Your task to perform on an android device: check out phone information Image 0: 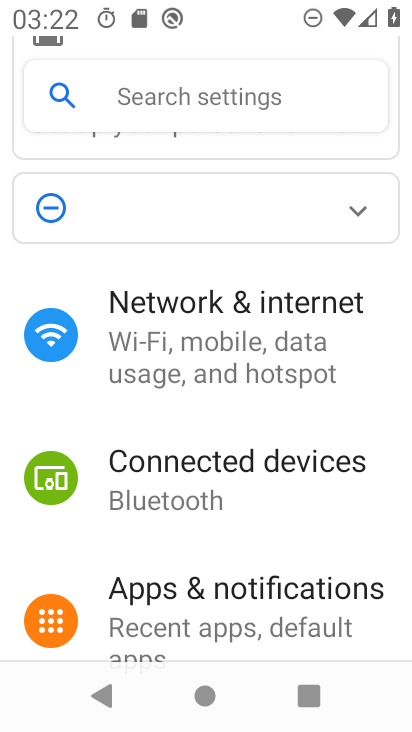
Step 0: press home button
Your task to perform on an android device: check out phone information Image 1: 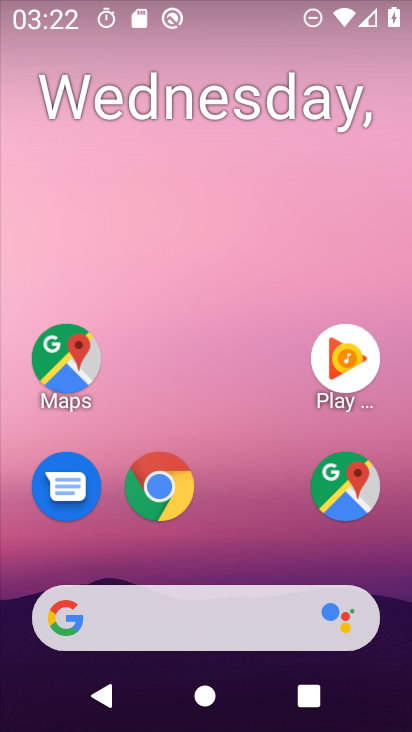
Step 1: drag from (266, 568) to (255, 146)
Your task to perform on an android device: check out phone information Image 2: 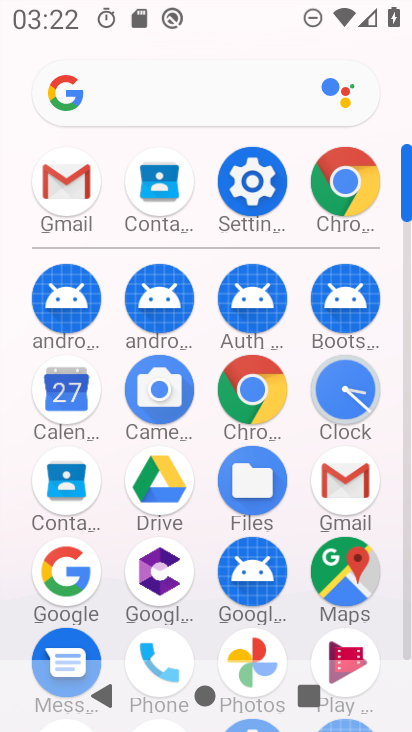
Step 2: drag from (391, 455) to (388, 247)
Your task to perform on an android device: check out phone information Image 3: 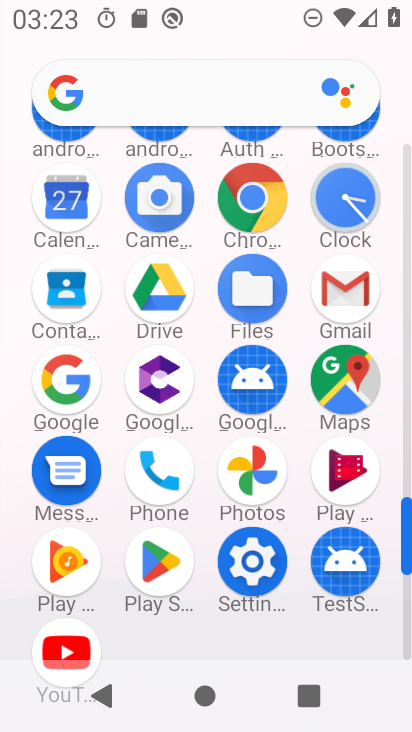
Step 3: click (167, 470)
Your task to perform on an android device: check out phone information Image 4: 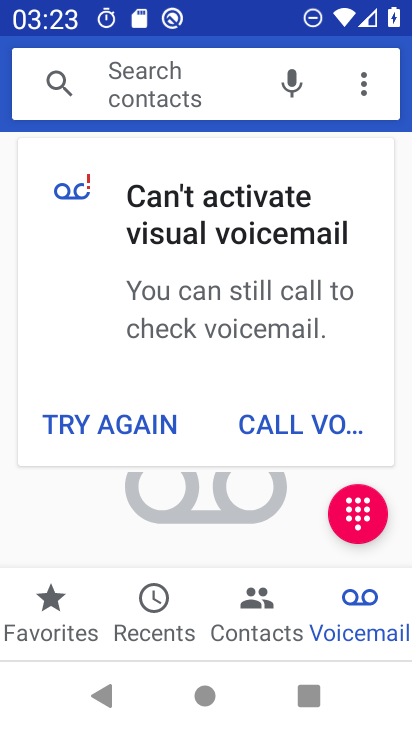
Step 4: task complete